Your task to perform on an android device: open chrome privacy settings Image 0: 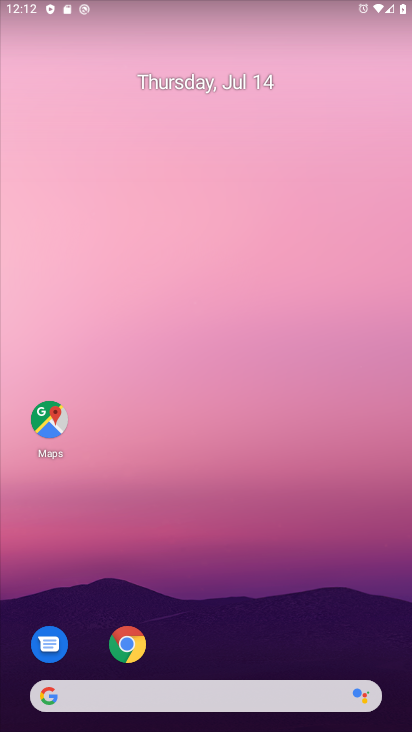
Step 0: click (118, 641)
Your task to perform on an android device: open chrome privacy settings Image 1: 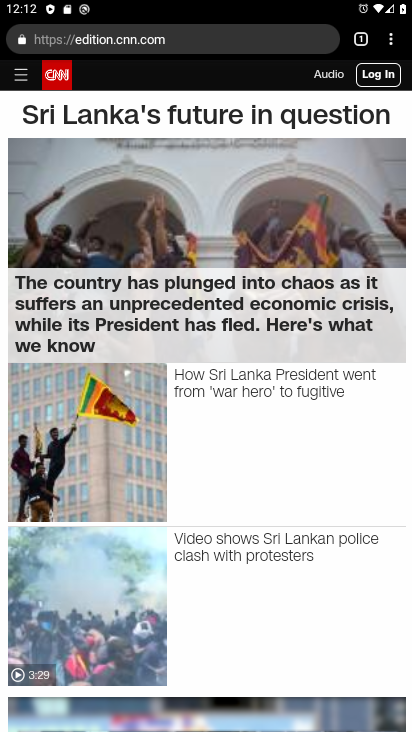
Step 1: click (396, 41)
Your task to perform on an android device: open chrome privacy settings Image 2: 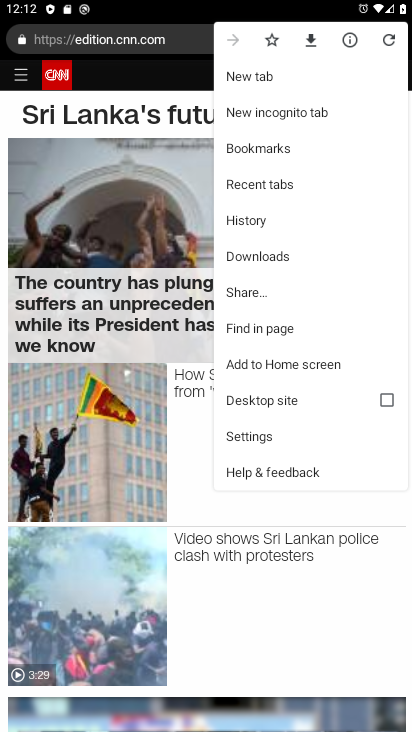
Step 2: click (240, 428)
Your task to perform on an android device: open chrome privacy settings Image 3: 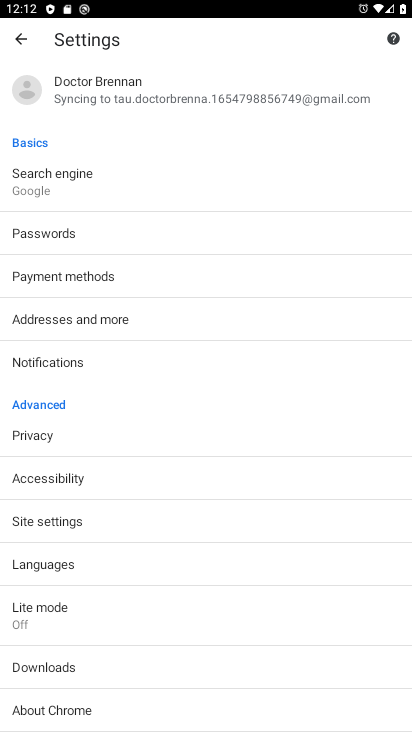
Step 3: click (48, 436)
Your task to perform on an android device: open chrome privacy settings Image 4: 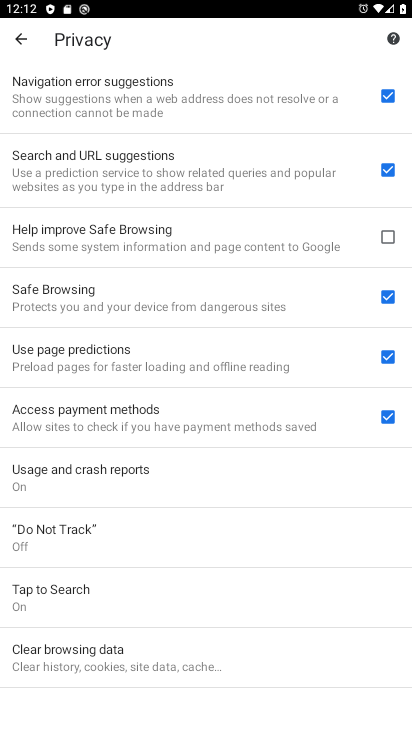
Step 4: task complete